Your task to perform on an android device: open chrome privacy settings Image 0: 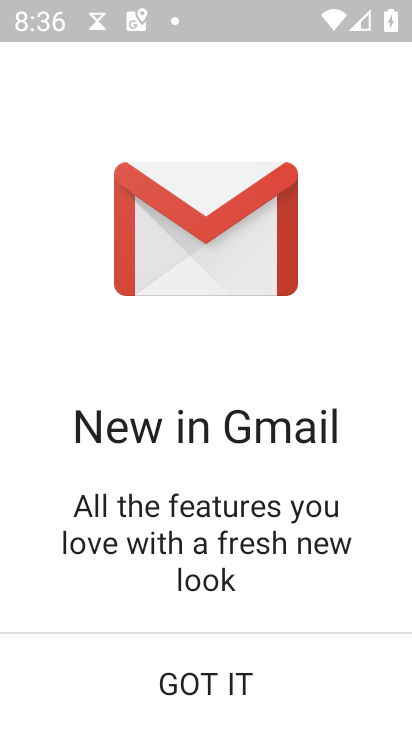
Step 0: press home button
Your task to perform on an android device: open chrome privacy settings Image 1: 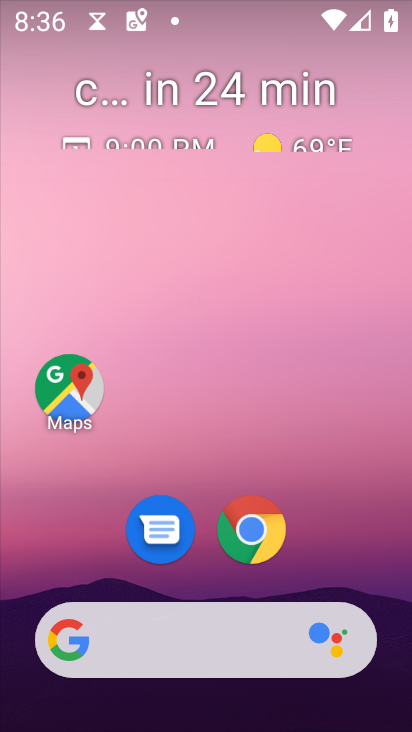
Step 1: click (258, 527)
Your task to perform on an android device: open chrome privacy settings Image 2: 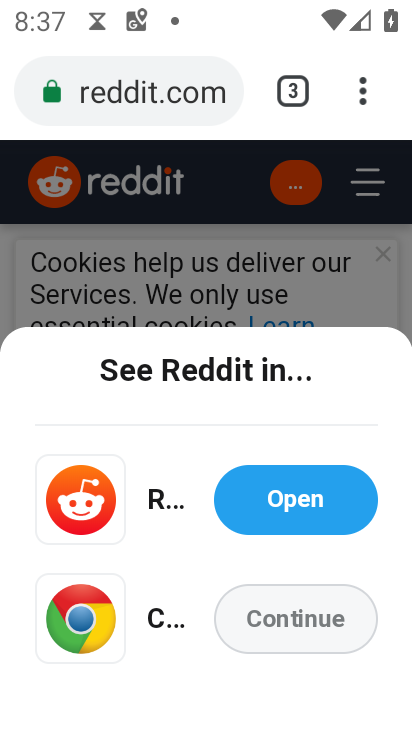
Step 2: click (361, 93)
Your task to perform on an android device: open chrome privacy settings Image 3: 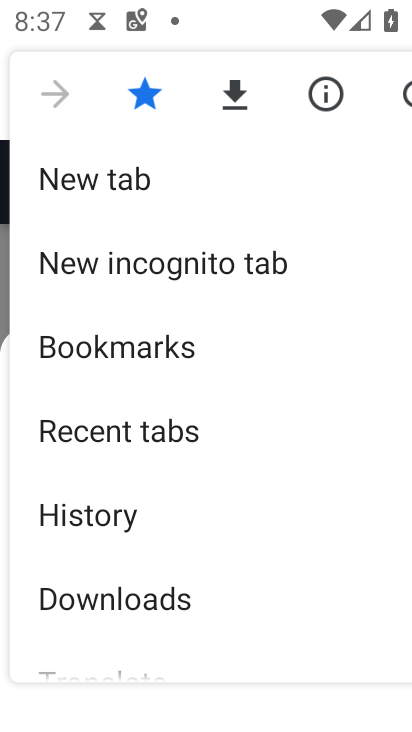
Step 3: drag from (290, 547) to (286, 94)
Your task to perform on an android device: open chrome privacy settings Image 4: 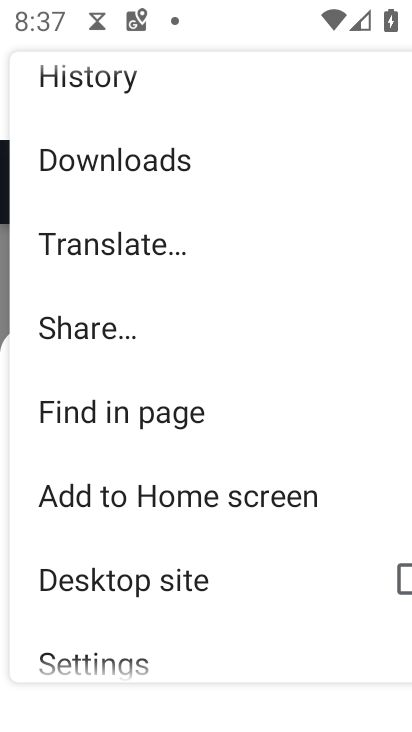
Step 4: drag from (245, 544) to (276, 3)
Your task to perform on an android device: open chrome privacy settings Image 5: 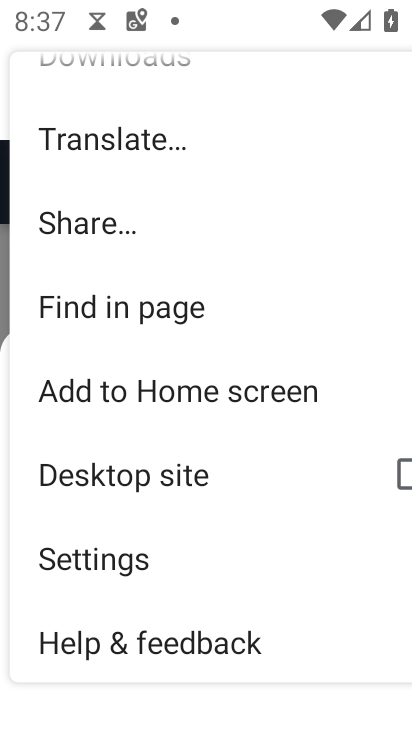
Step 5: click (188, 574)
Your task to perform on an android device: open chrome privacy settings Image 6: 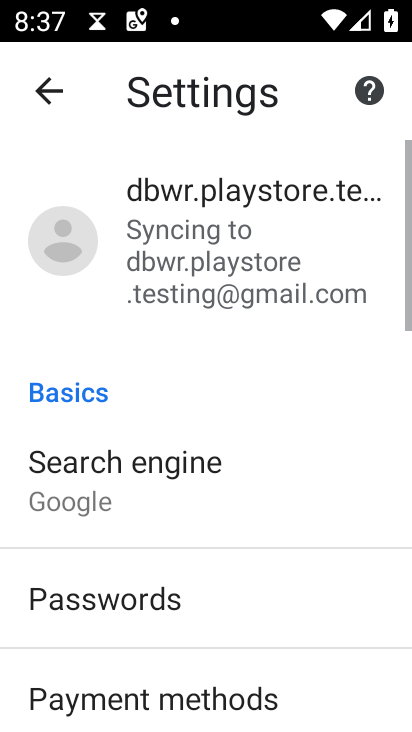
Step 6: drag from (207, 561) to (224, 70)
Your task to perform on an android device: open chrome privacy settings Image 7: 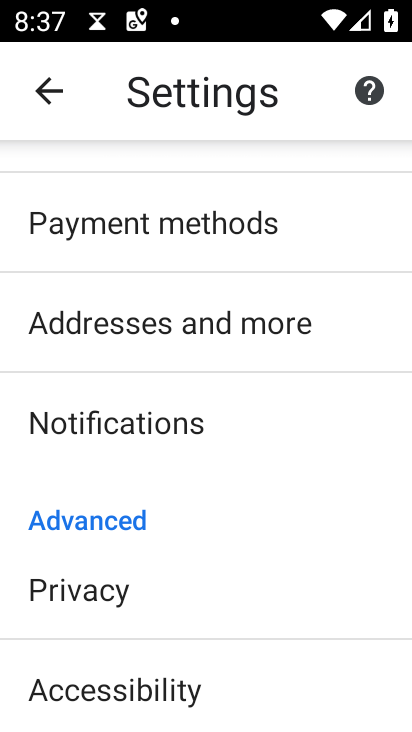
Step 7: click (199, 601)
Your task to perform on an android device: open chrome privacy settings Image 8: 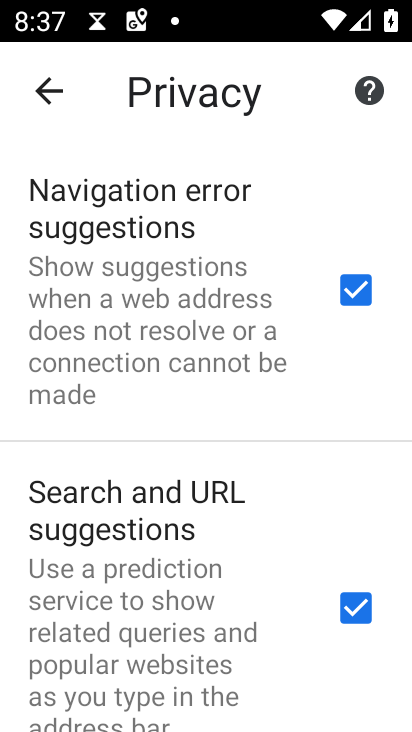
Step 8: task complete